Your task to perform on an android device: Open Google Chrome and click the shortcut for Amazon.com Image 0: 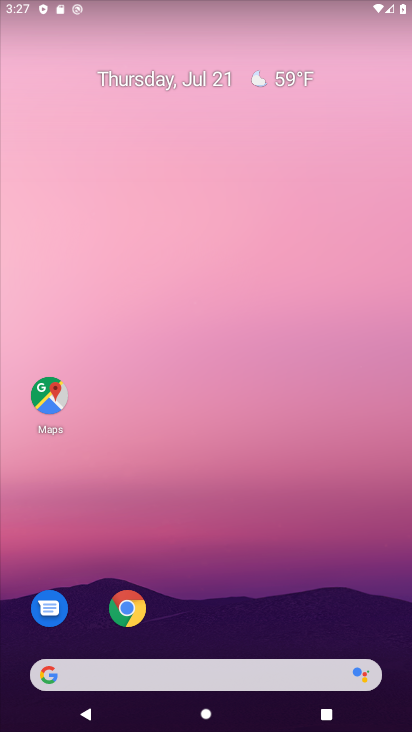
Step 0: drag from (263, 366) to (265, 68)
Your task to perform on an android device: Open Google Chrome and click the shortcut for Amazon.com Image 1: 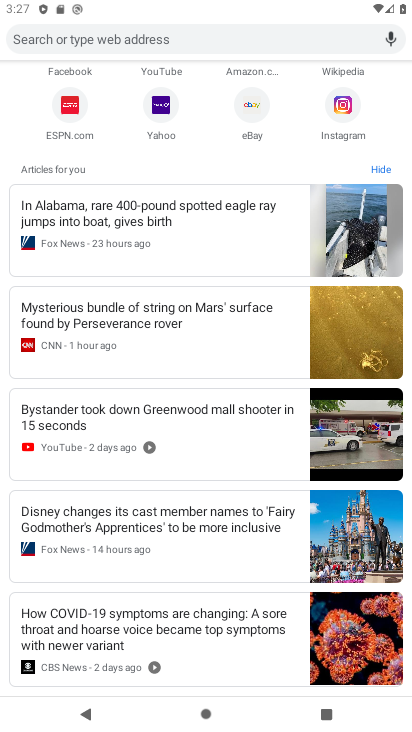
Step 1: press home button
Your task to perform on an android device: Open Google Chrome and click the shortcut for Amazon.com Image 2: 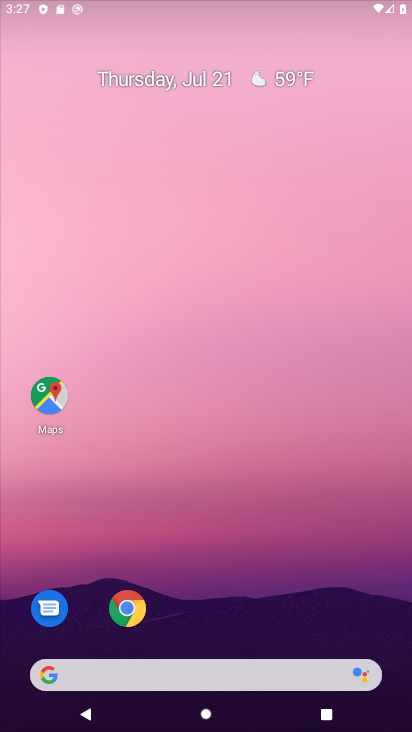
Step 2: drag from (304, 689) to (290, 53)
Your task to perform on an android device: Open Google Chrome and click the shortcut for Amazon.com Image 3: 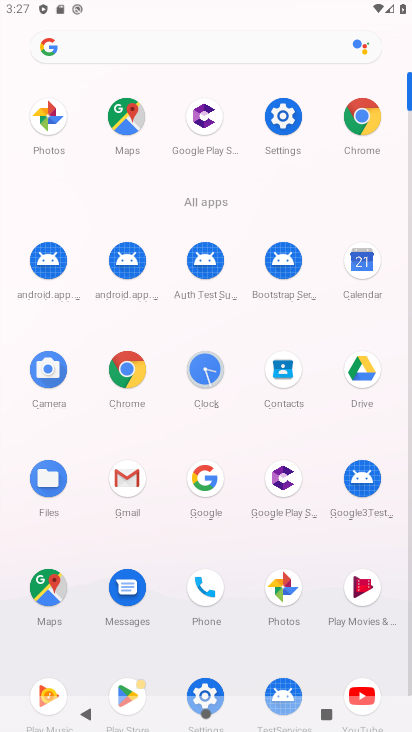
Step 3: click (131, 374)
Your task to perform on an android device: Open Google Chrome and click the shortcut for Amazon.com Image 4: 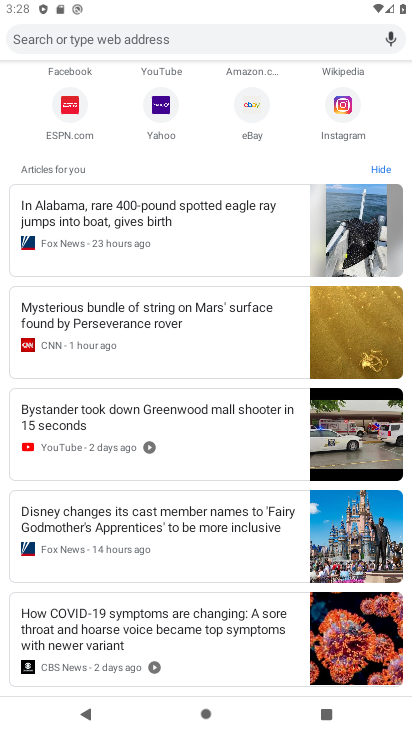
Step 4: drag from (296, 131) to (254, 483)
Your task to perform on an android device: Open Google Chrome and click the shortcut for Amazon.com Image 5: 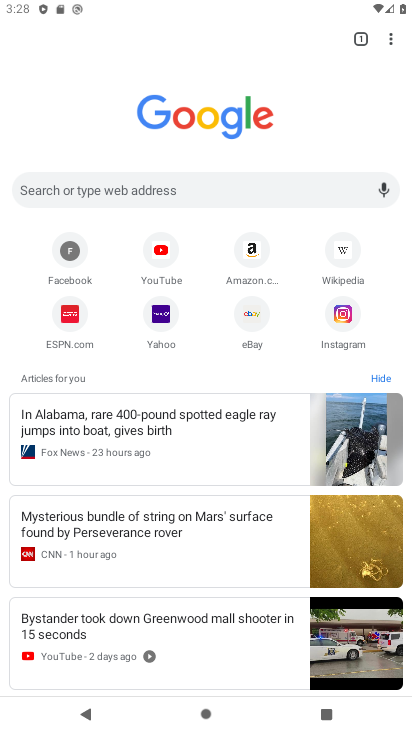
Step 5: click (388, 32)
Your task to perform on an android device: Open Google Chrome and click the shortcut for Amazon.com Image 6: 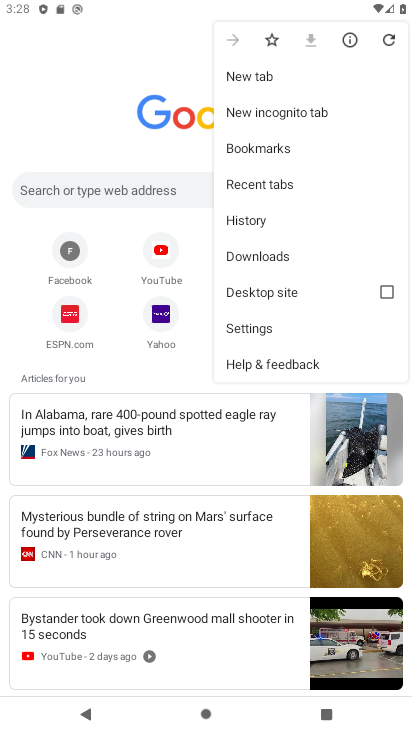
Step 6: click (271, 331)
Your task to perform on an android device: Open Google Chrome and click the shortcut for Amazon.com Image 7: 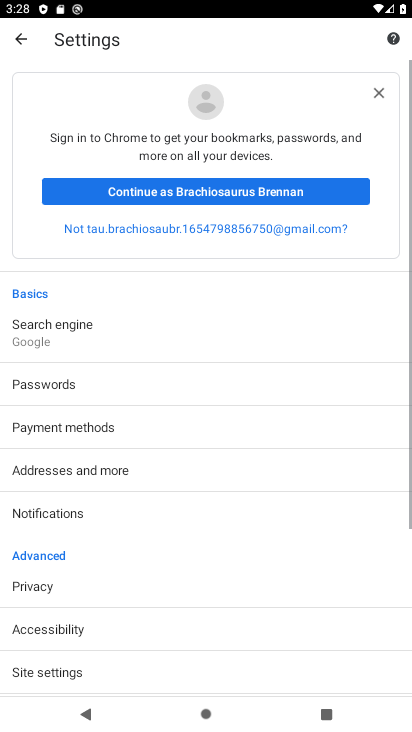
Step 7: press back button
Your task to perform on an android device: Open Google Chrome and click the shortcut for Amazon.com Image 8: 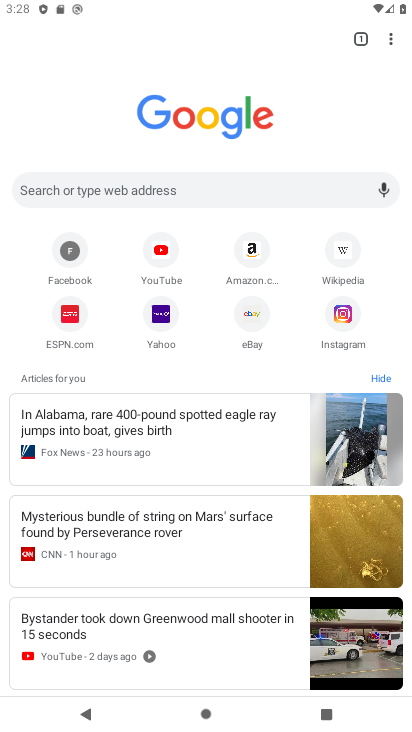
Step 8: click (274, 249)
Your task to perform on an android device: Open Google Chrome and click the shortcut for Amazon.com Image 9: 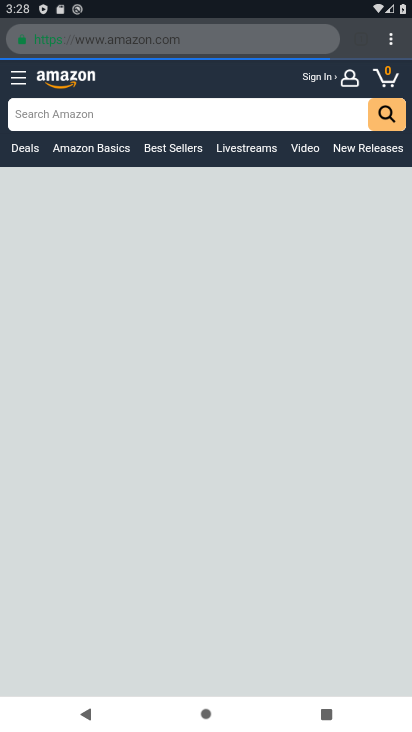
Step 9: drag from (395, 36) to (276, 365)
Your task to perform on an android device: Open Google Chrome and click the shortcut for Amazon.com Image 10: 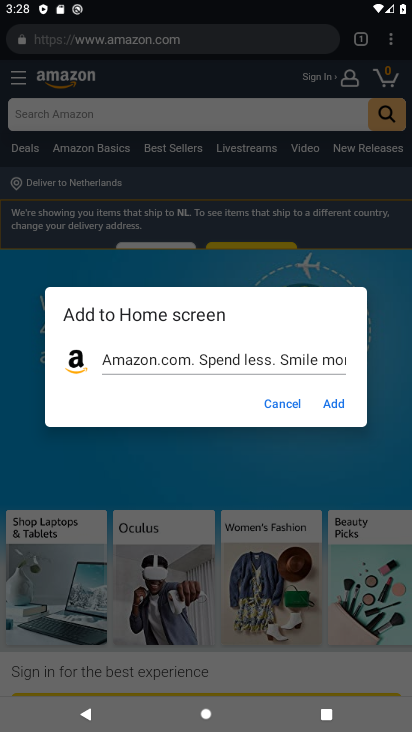
Step 10: click (331, 404)
Your task to perform on an android device: Open Google Chrome and click the shortcut for Amazon.com Image 11: 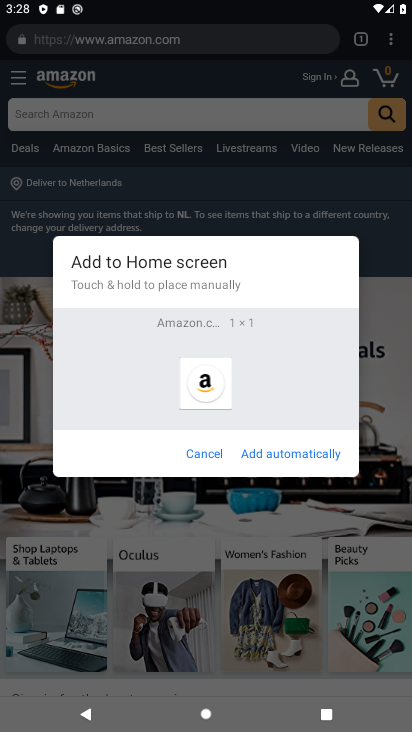
Step 11: click (309, 453)
Your task to perform on an android device: Open Google Chrome and click the shortcut for Amazon.com Image 12: 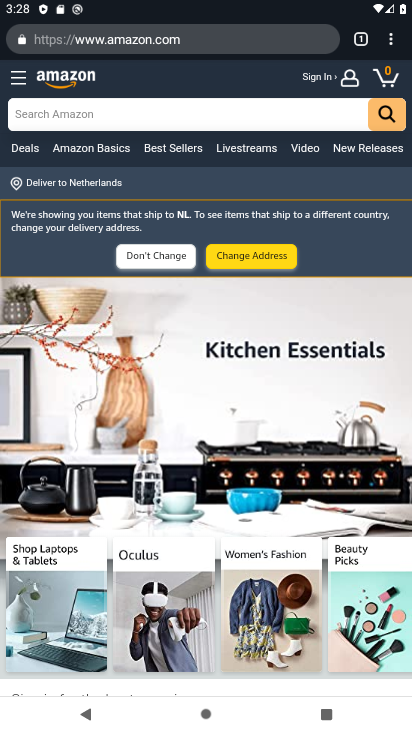
Step 12: task complete